Your task to perform on an android device: Open eBay Image 0: 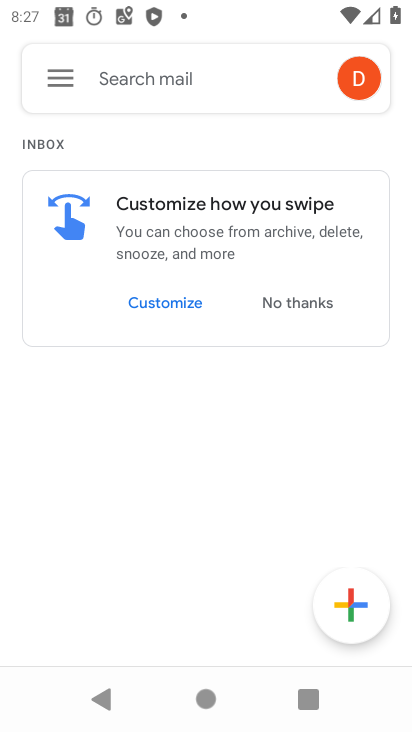
Step 0: press home button
Your task to perform on an android device: Open eBay Image 1: 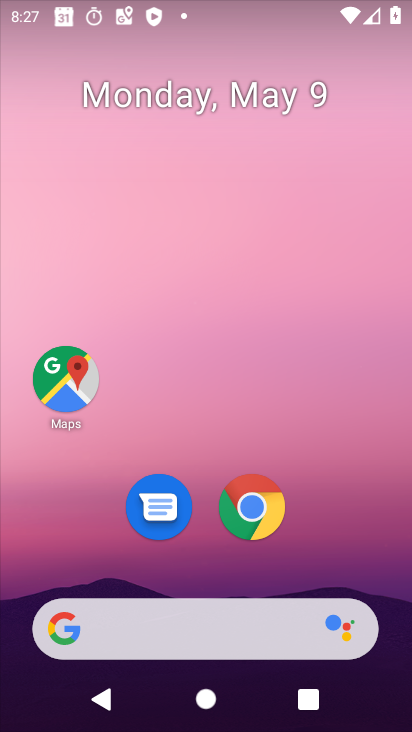
Step 1: click (253, 509)
Your task to perform on an android device: Open eBay Image 2: 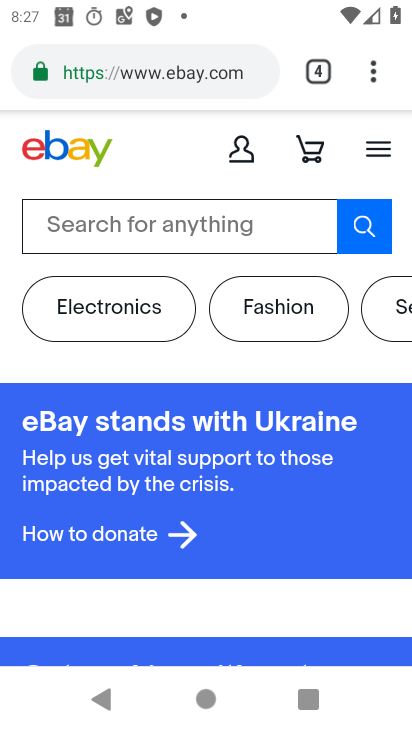
Step 2: click (180, 73)
Your task to perform on an android device: Open eBay Image 3: 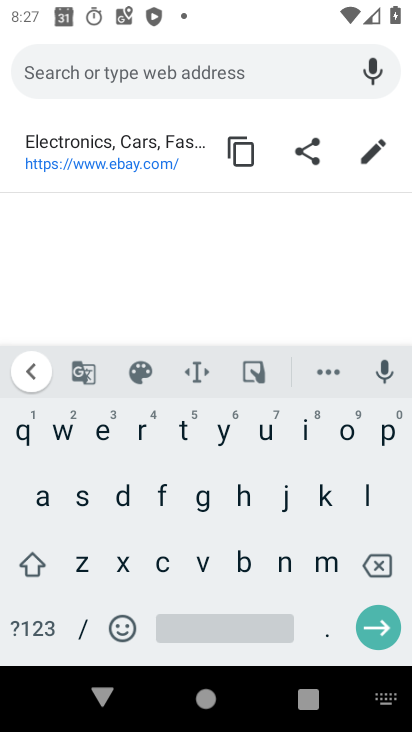
Step 3: click (122, 162)
Your task to perform on an android device: Open eBay Image 4: 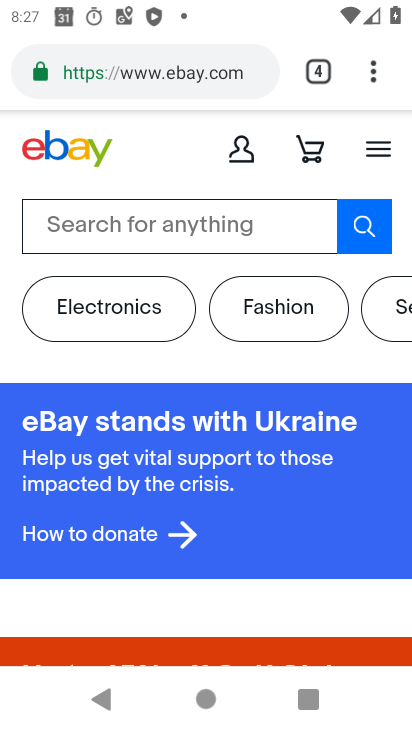
Step 4: task complete